Your task to perform on an android device: Open Android settings Image 0: 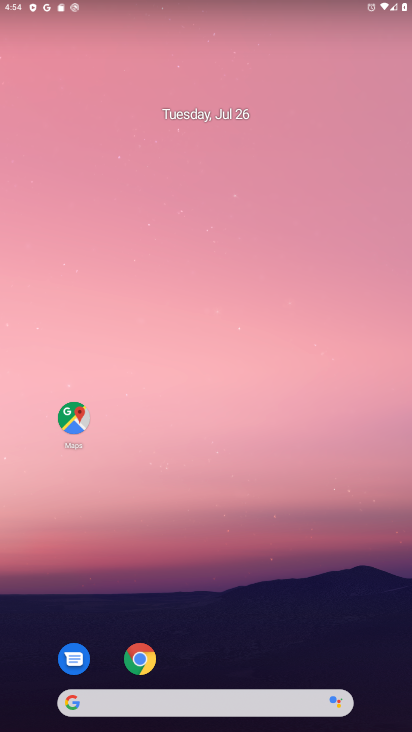
Step 0: press home button
Your task to perform on an android device: Open Android settings Image 1: 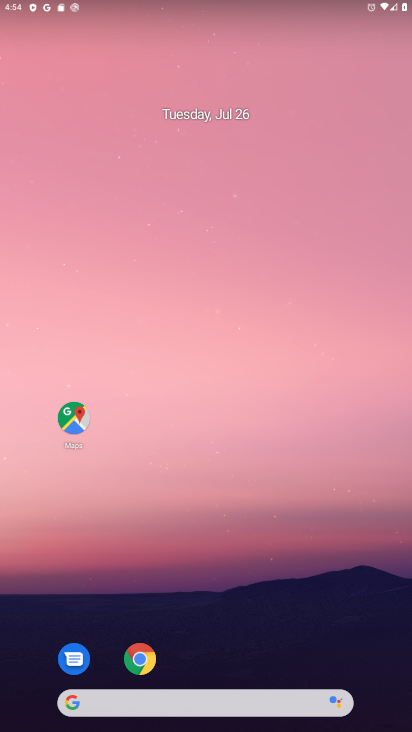
Step 1: drag from (207, 673) to (253, 54)
Your task to perform on an android device: Open Android settings Image 2: 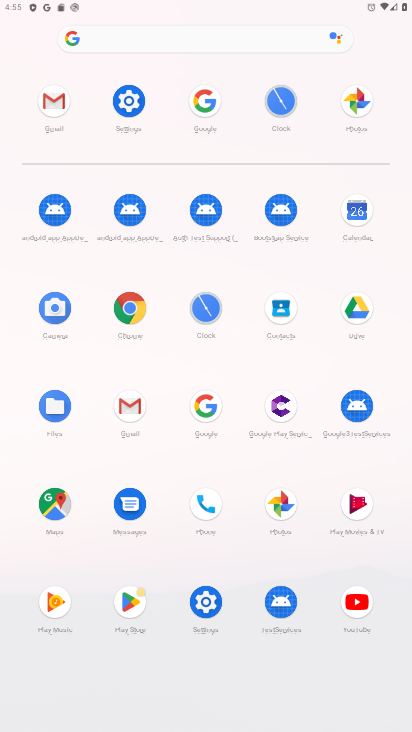
Step 2: click (204, 595)
Your task to perform on an android device: Open Android settings Image 3: 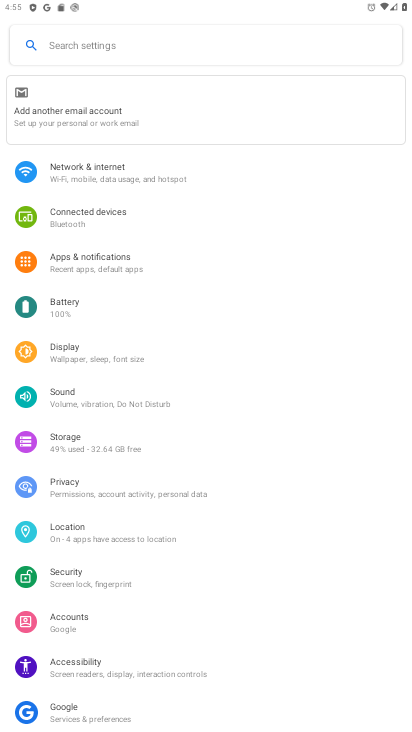
Step 3: drag from (133, 675) to (224, 95)
Your task to perform on an android device: Open Android settings Image 4: 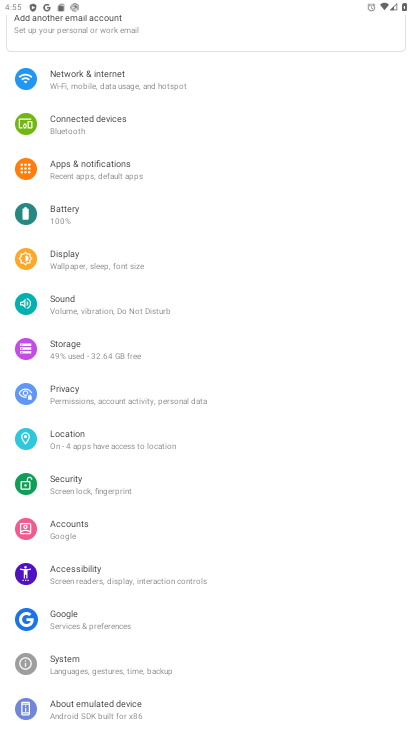
Step 4: click (156, 705)
Your task to perform on an android device: Open Android settings Image 5: 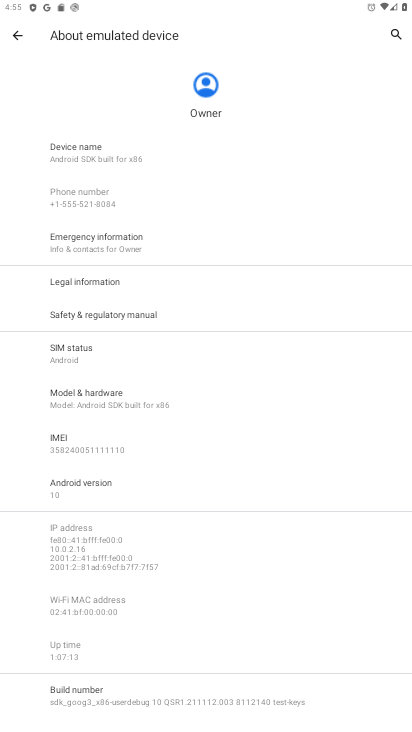
Step 5: click (116, 484)
Your task to perform on an android device: Open Android settings Image 6: 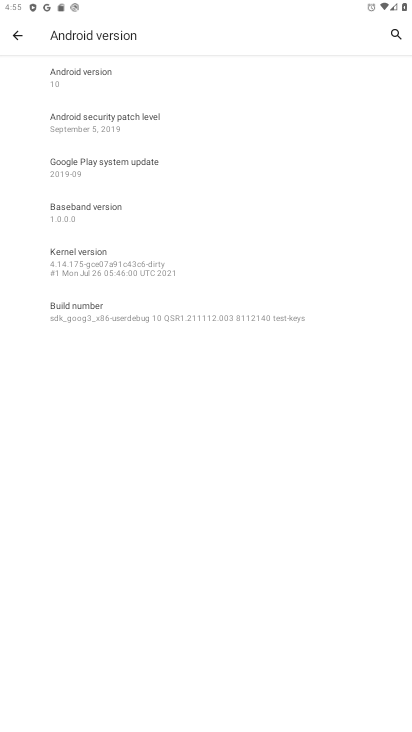
Step 6: task complete